Your task to perform on an android device: change alarm snooze length Image 0: 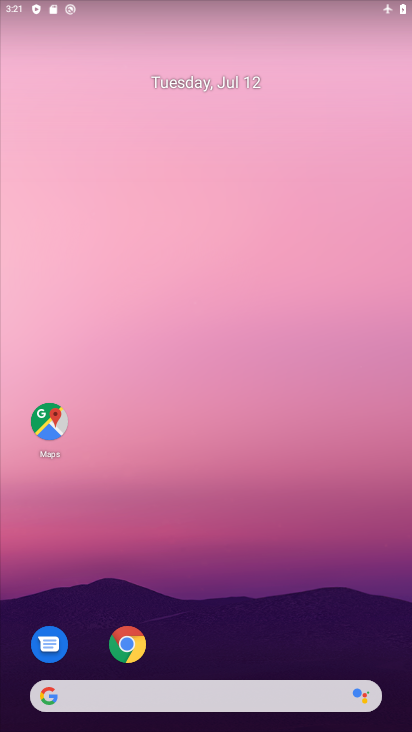
Step 0: drag from (235, 601) to (180, 116)
Your task to perform on an android device: change alarm snooze length Image 1: 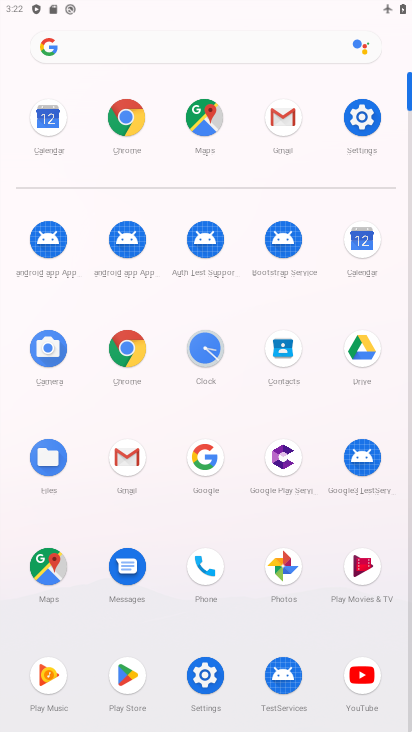
Step 1: click (211, 346)
Your task to perform on an android device: change alarm snooze length Image 2: 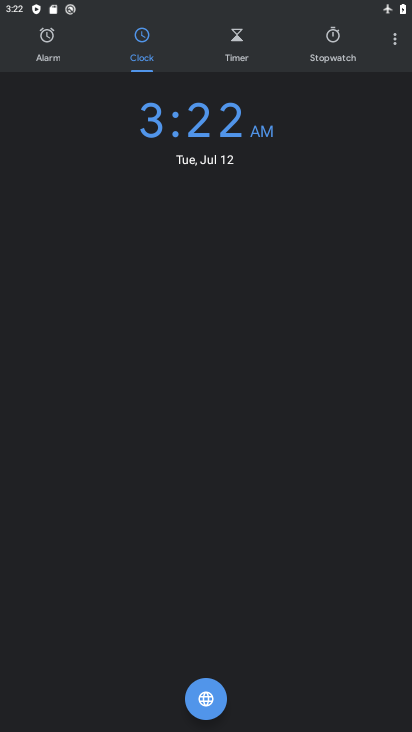
Step 2: click (398, 35)
Your task to perform on an android device: change alarm snooze length Image 3: 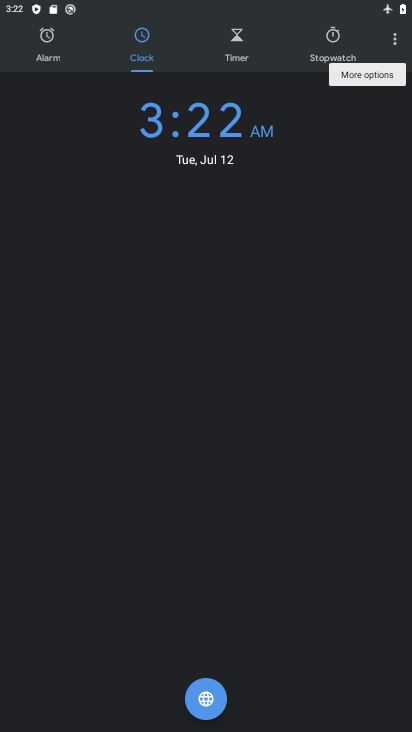
Step 3: click (398, 35)
Your task to perform on an android device: change alarm snooze length Image 4: 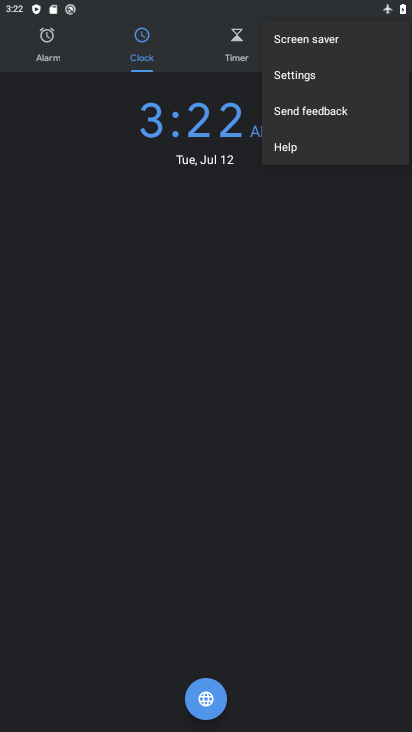
Step 4: click (304, 85)
Your task to perform on an android device: change alarm snooze length Image 5: 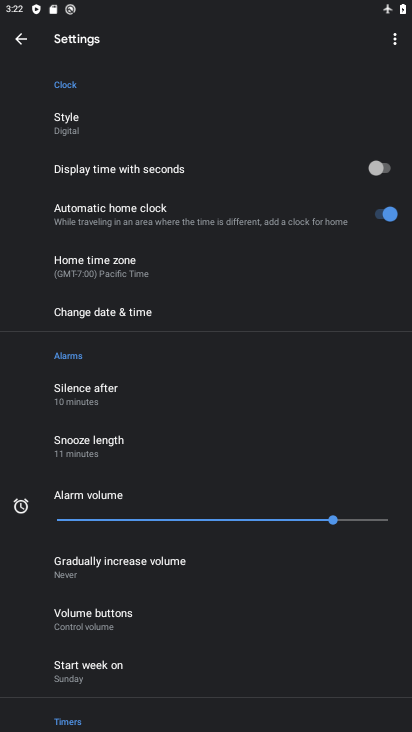
Step 5: click (105, 437)
Your task to perform on an android device: change alarm snooze length Image 6: 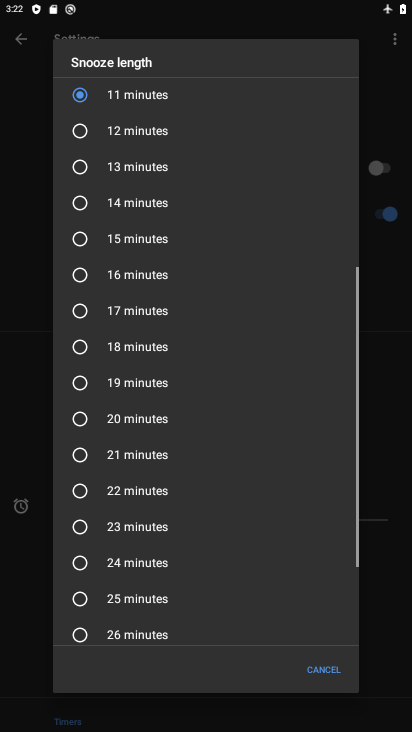
Step 6: click (134, 128)
Your task to perform on an android device: change alarm snooze length Image 7: 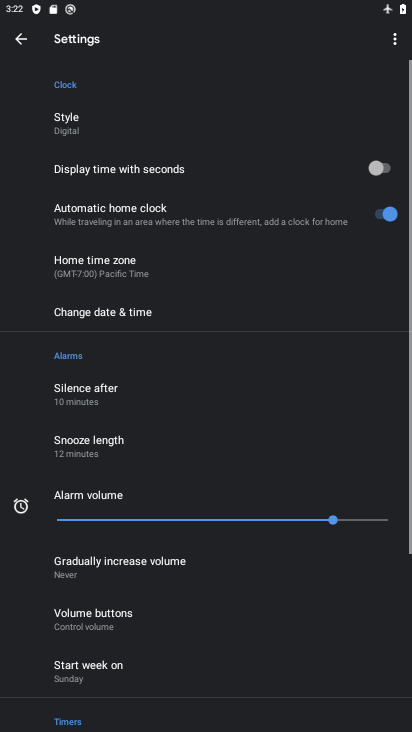
Step 7: task complete